Your task to perform on an android device: turn notification dots off Image 0: 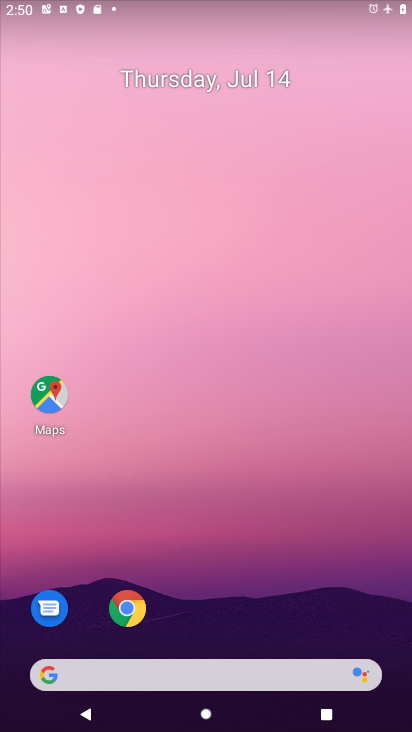
Step 0: drag from (385, 639) to (358, 175)
Your task to perform on an android device: turn notification dots off Image 1: 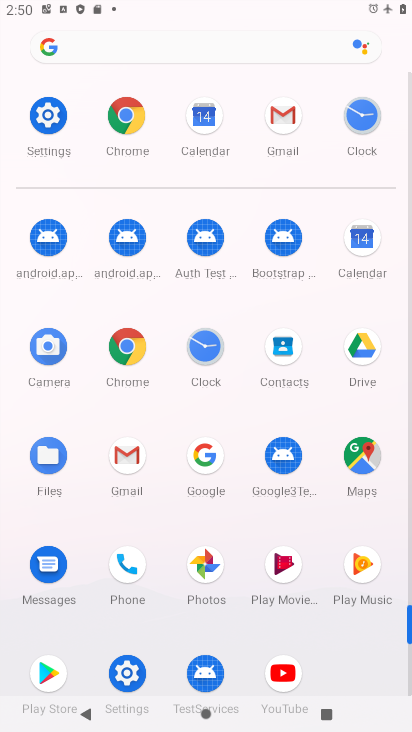
Step 1: click (125, 670)
Your task to perform on an android device: turn notification dots off Image 2: 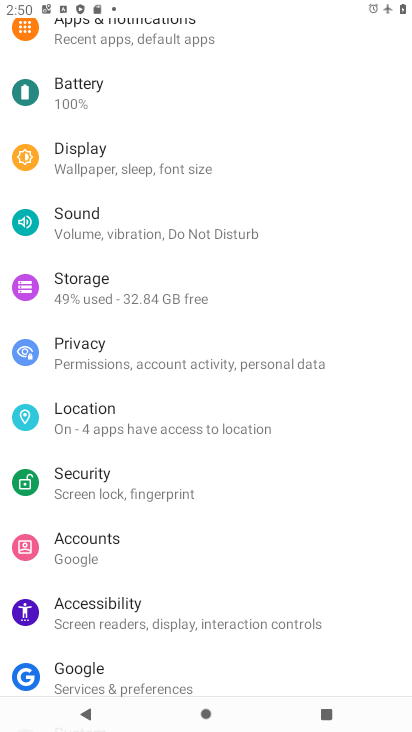
Step 2: drag from (324, 202) to (352, 426)
Your task to perform on an android device: turn notification dots off Image 3: 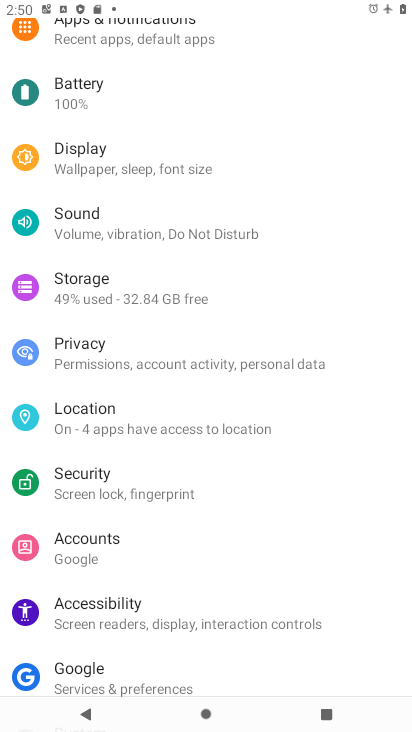
Step 3: drag from (239, 86) to (314, 400)
Your task to perform on an android device: turn notification dots off Image 4: 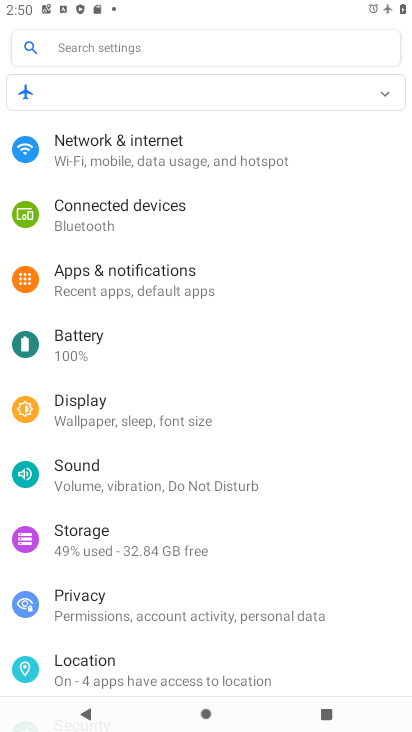
Step 4: click (96, 279)
Your task to perform on an android device: turn notification dots off Image 5: 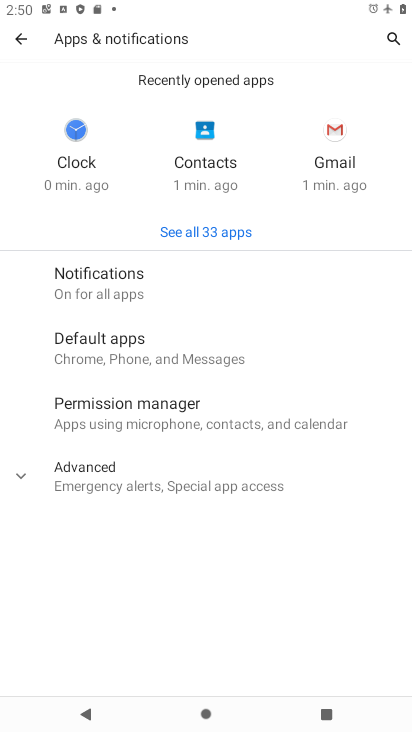
Step 5: click (87, 274)
Your task to perform on an android device: turn notification dots off Image 6: 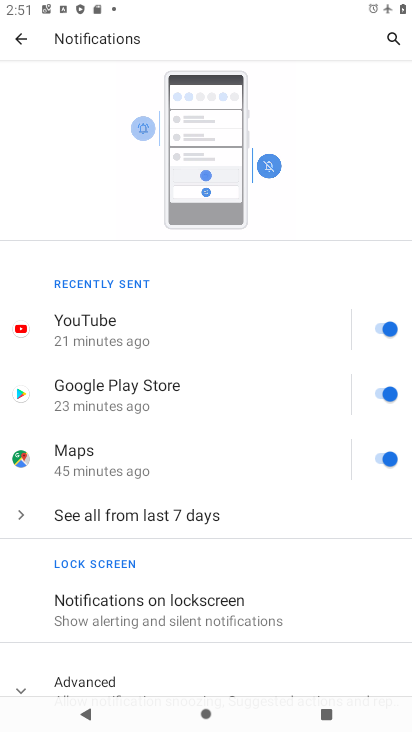
Step 6: drag from (238, 655) to (271, 254)
Your task to perform on an android device: turn notification dots off Image 7: 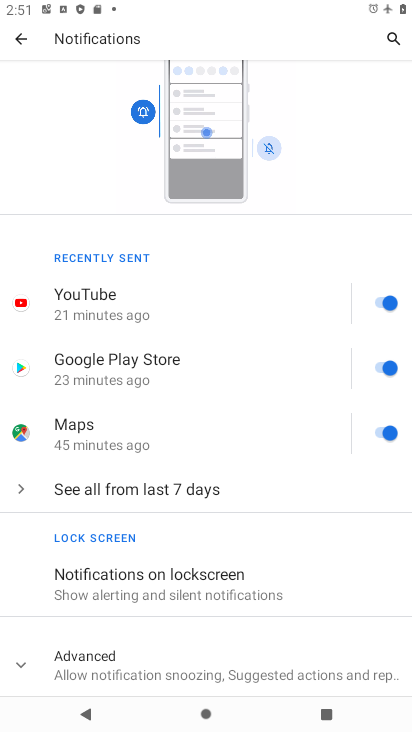
Step 7: click (17, 665)
Your task to perform on an android device: turn notification dots off Image 8: 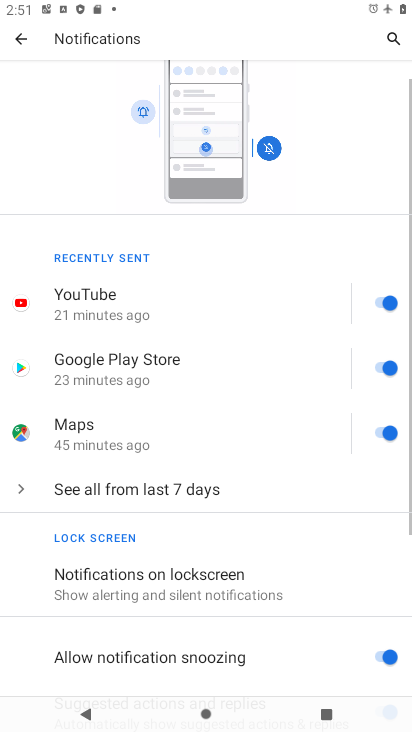
Step 8: task complete